Your task to perform on an android device: allow notifications from all sites in the chrome app Image 0: 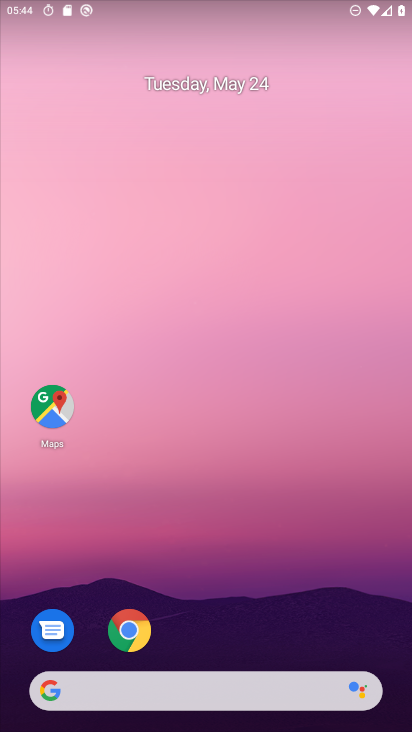
Step 0: click (130, 642)
Your task to perform on an android device: allow notifications from all sites in the chrome app Image 1: 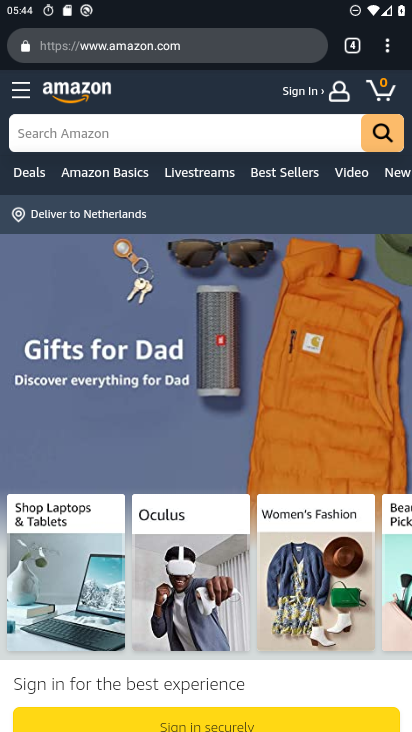
Step 1: click (392, 53)
Your task to perform on an android device: allow notifications from all sites in the chrome app Image 2: 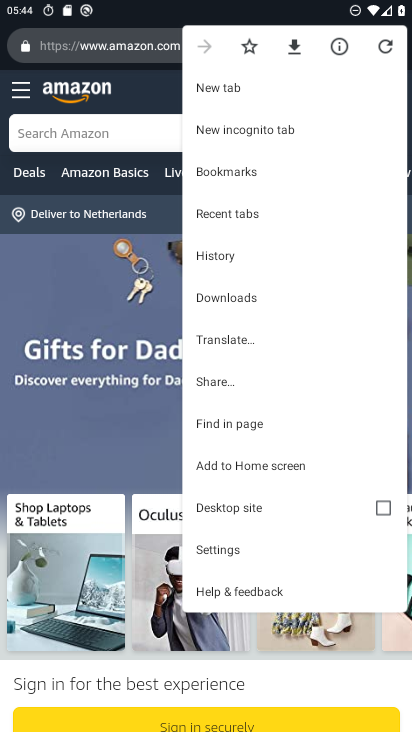
Step 2: click (243, 556)
Your task to perform on an android device: allow notifications from all sites in the chrome app Image 3: 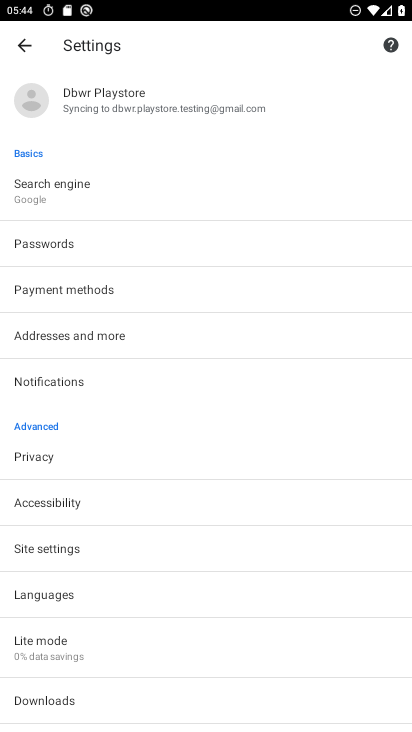
Step 3: click (79, 392)
Your task to perform on an android device: allow notifications from all sites in the chrome app Image 4: 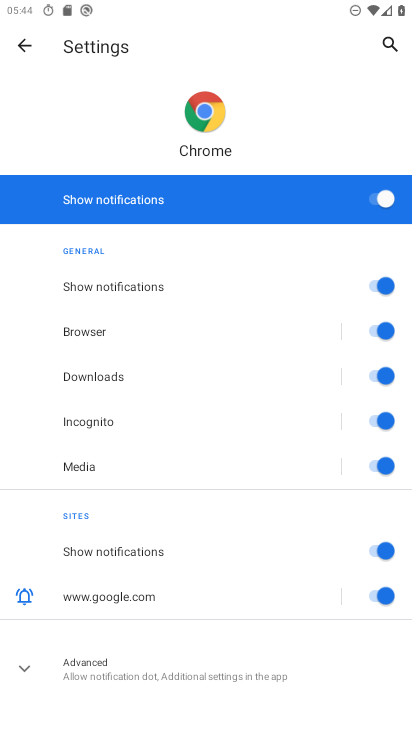
Step 4: task complete